Your task to perform on an android device: turn on wifi Image 0: 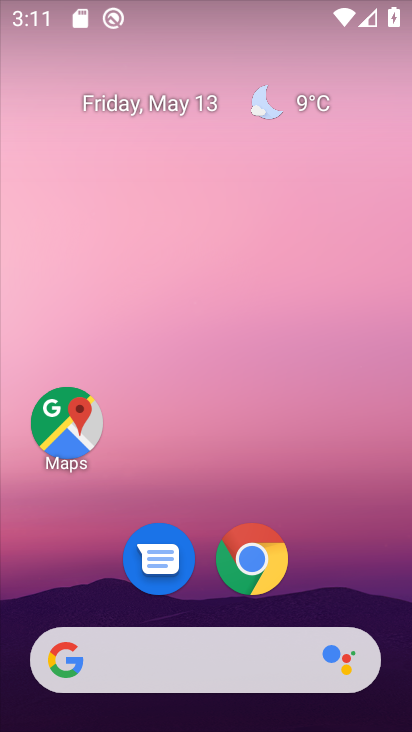
Step 0: drag from (128, 12) to (146, 384)
Your task to perform on an android device: turn on wifi Image 1: 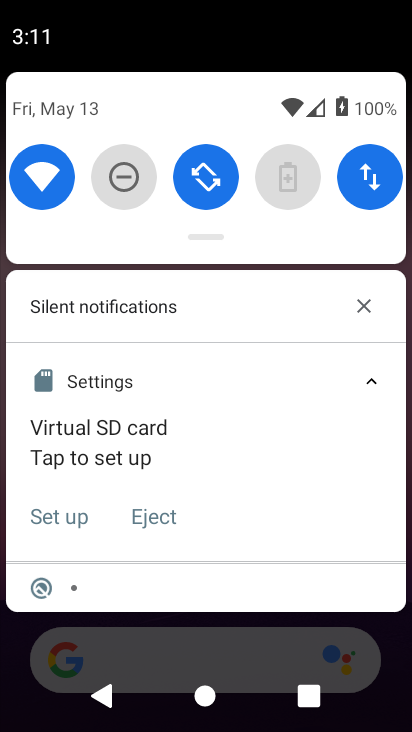
Step 1: task complete